Your task to perform on an android device: turn off picture-in-picture Image 0: 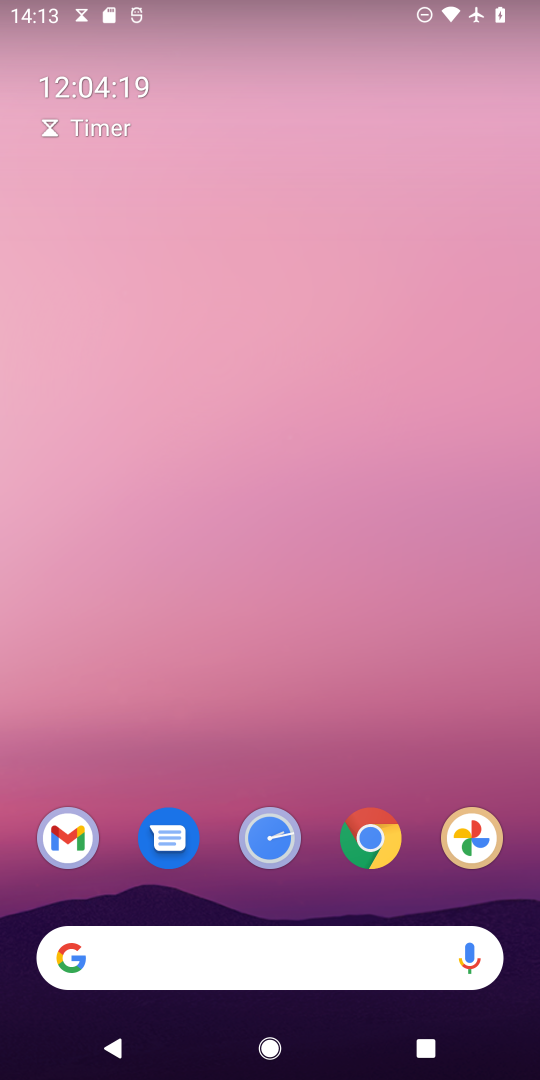
Step 0: press home button
Your task to perform on an android device: turn off picture-in-picture Image 1: 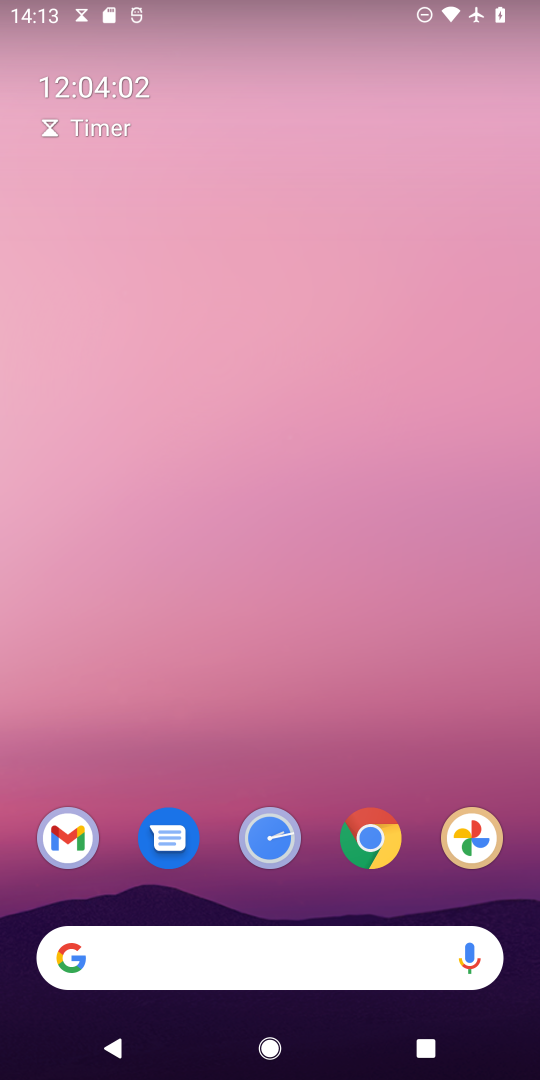
Step 1: click (366, 845)
Your task to perform on an android device: turn off picture-in-picture Image 2: 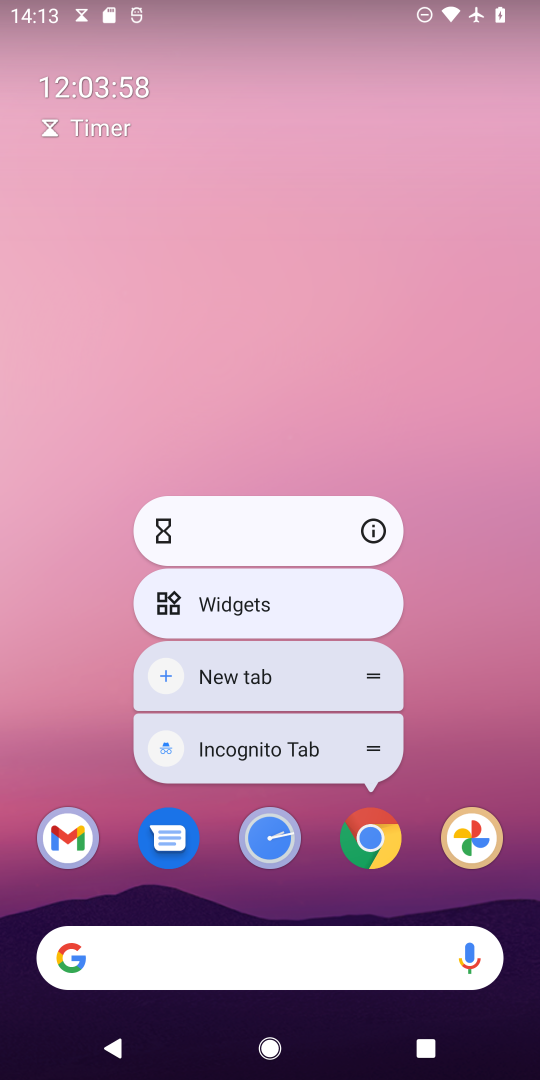
Step 2: click (372, 527)
Your task to perform on an android device: turn off picture-in-picture Image 3: 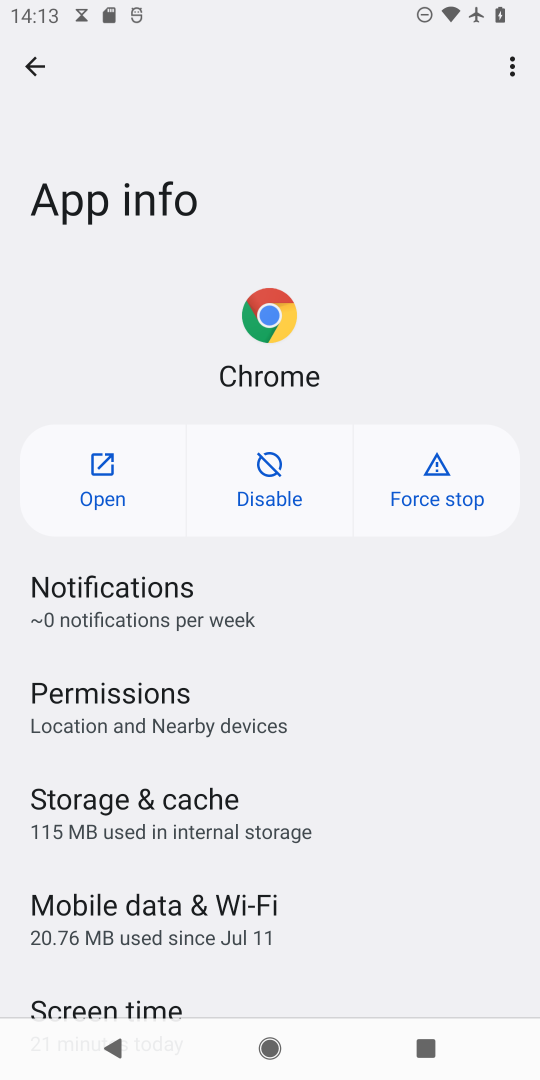
Step 3: drag from (345, 852) to (344, 86)
Your task to perform on an android device: turn off picture-in-picture Image 4: 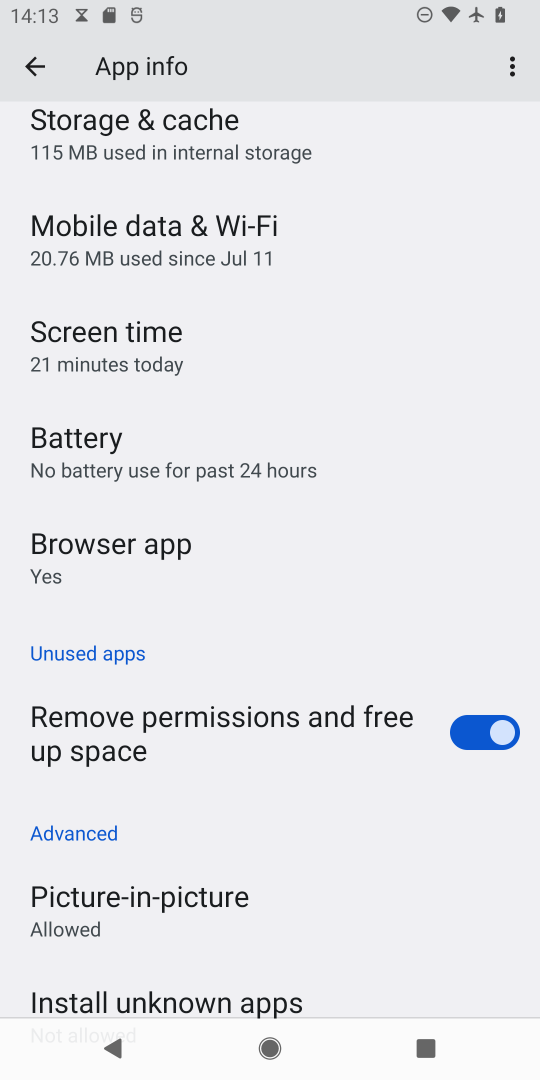
Step 4: click (136, 905)
Your task to perform on an android device: turn off picture-in-picture Image 5: 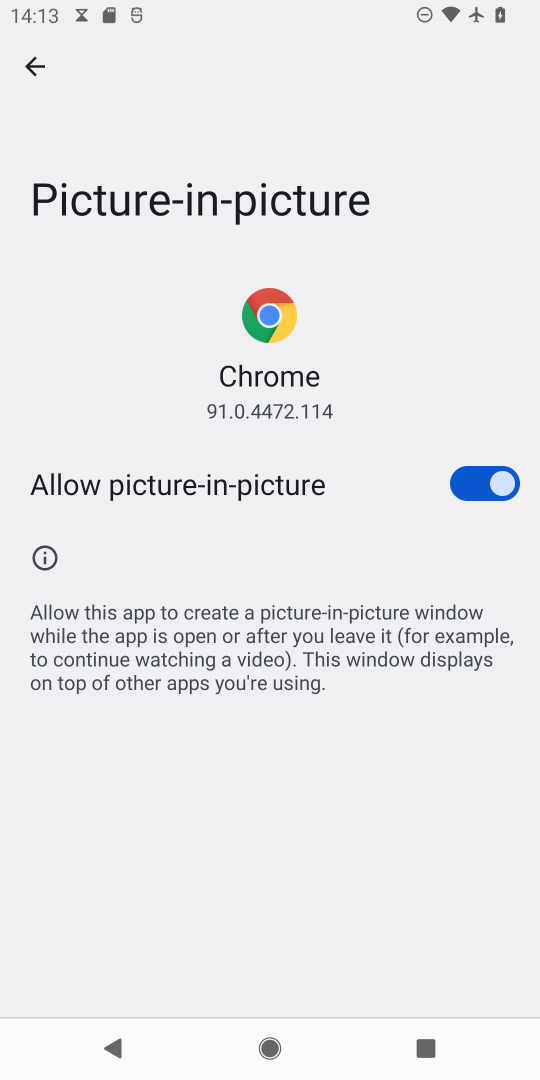
Step 5: click (500, 480)
Your task to perform on an android device: turn off picture-in-picture Image 6: 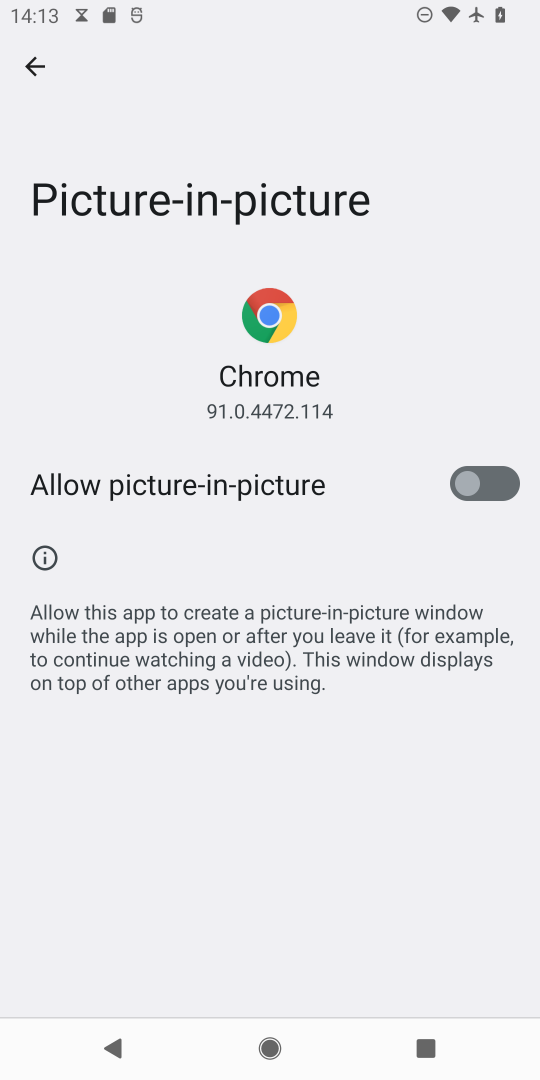
Step 6: task complete